Your task to perform on an android device: Do I have any events today? Image 0: 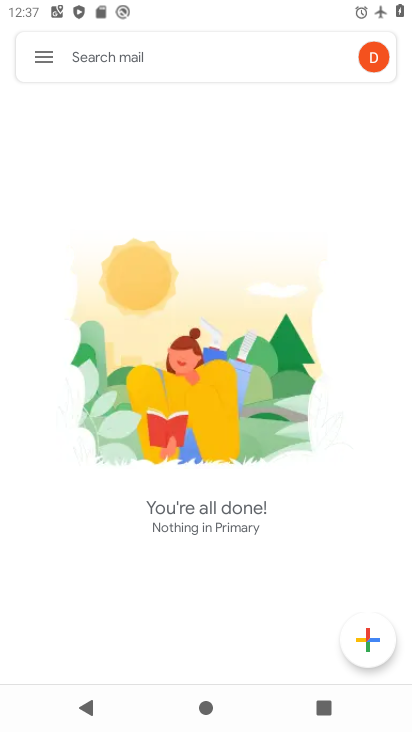
Step 0: press home button
Your task to perform on an android device: Do I have any events today? Image 1: 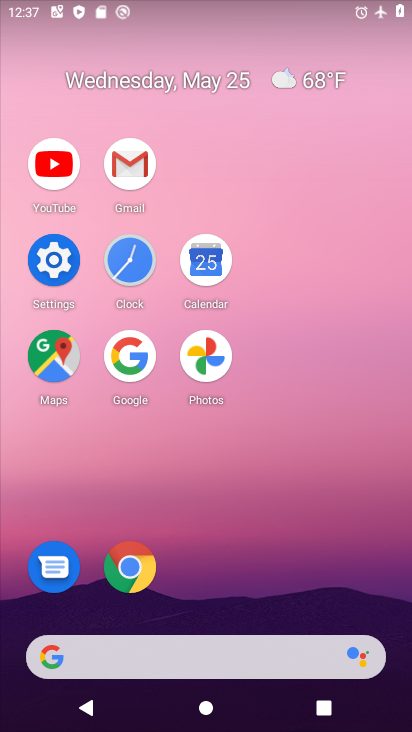
Step 1: click (205, 252)
Your task to perform on an android device: Do I have any events today? Image 2: 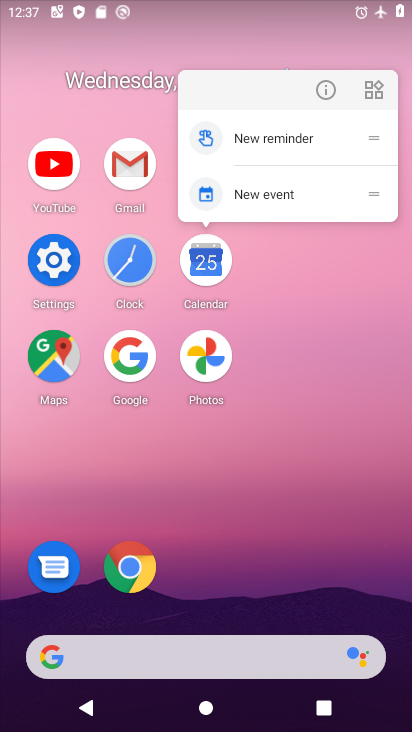
Step 2: click (201, 257)
Your task to perform on an android device: Do I have any events today? Image 3: 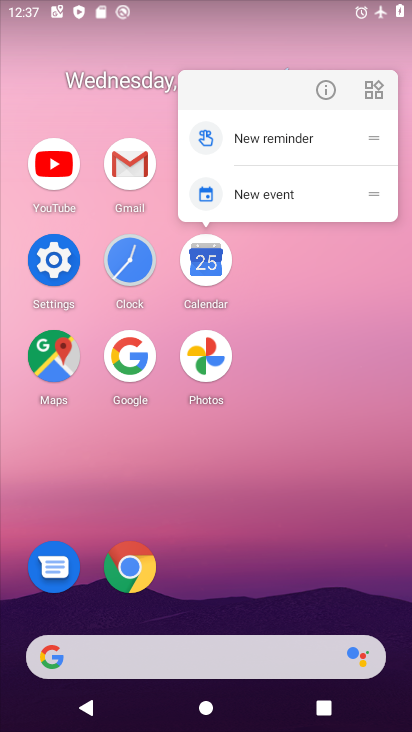
Step 3: click (201, 256)
Your task to perform on an android device: Do I have any events today? Image 4: 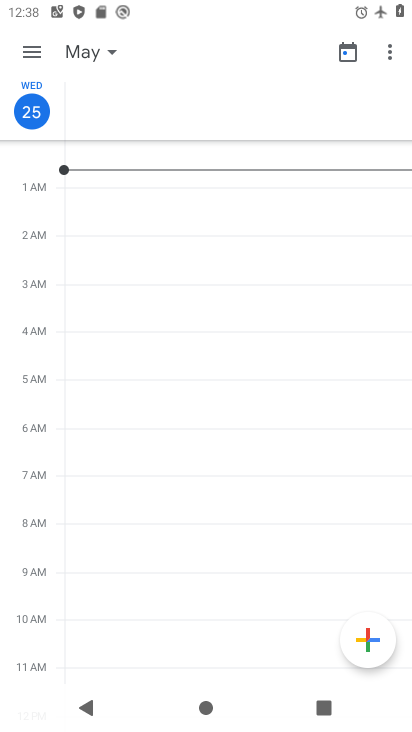
Step 4: click (38, 115)
Your task to perform on an android device: Do I have any events today? Image 5: 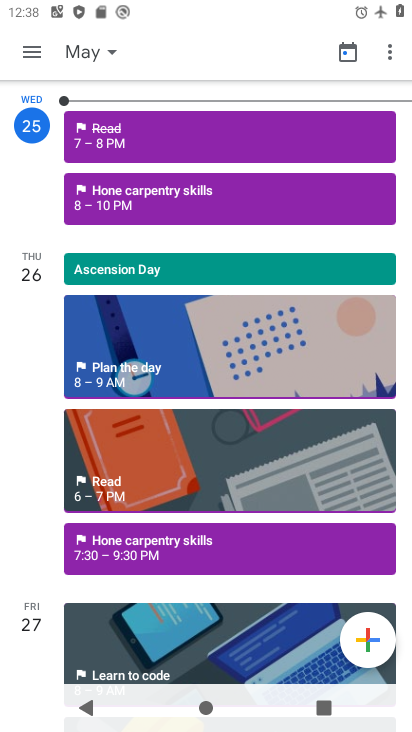
Step 5: task complete